Your task to perform on an android device: Clear the shopping cart on target. Search for "lenovo thinkpad" on target, select the first entry, add it to the cart, then select checkout. Image 0: 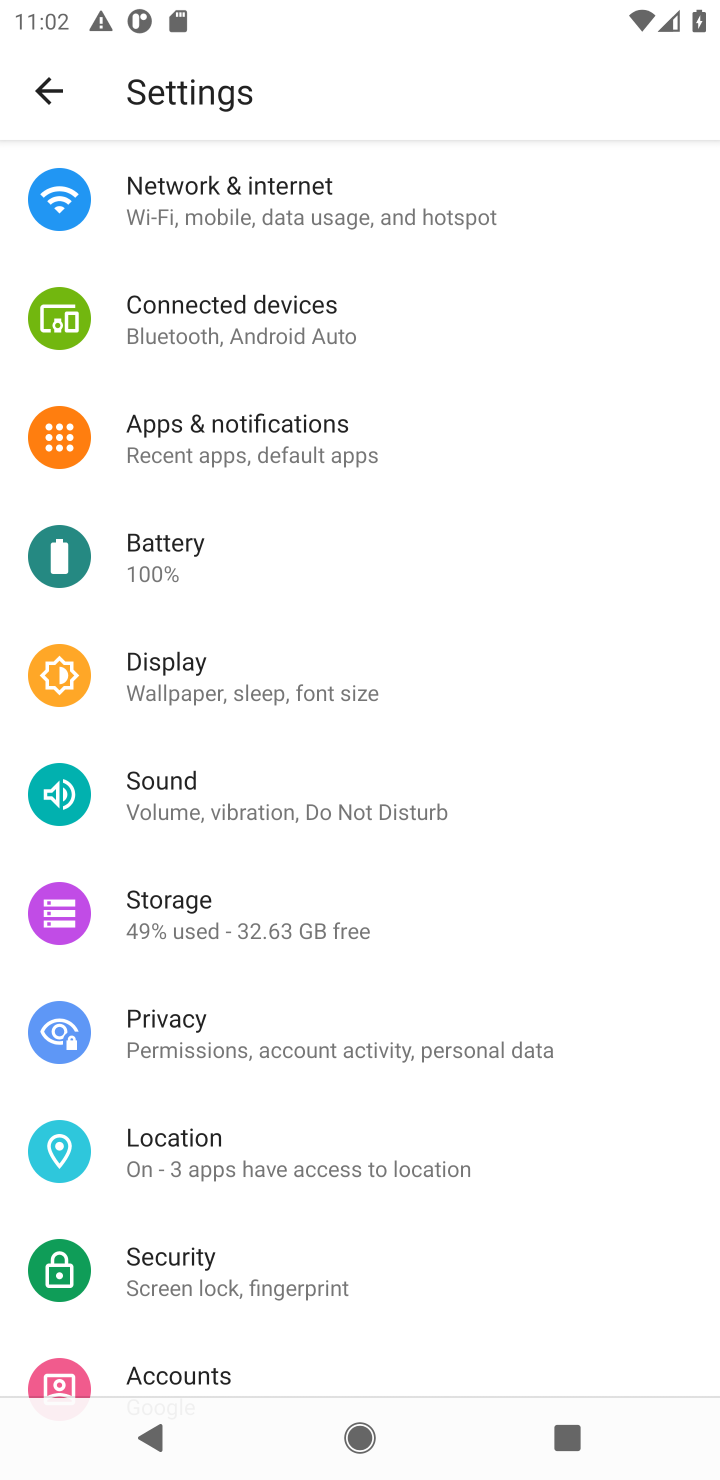
Step 0: press home button
Your task to perform on an android device: Clear the shopping cart on target. Search for "lenovo thinkpad" on target, select the first entry, add it to the cart, then select checkout. Image 1: 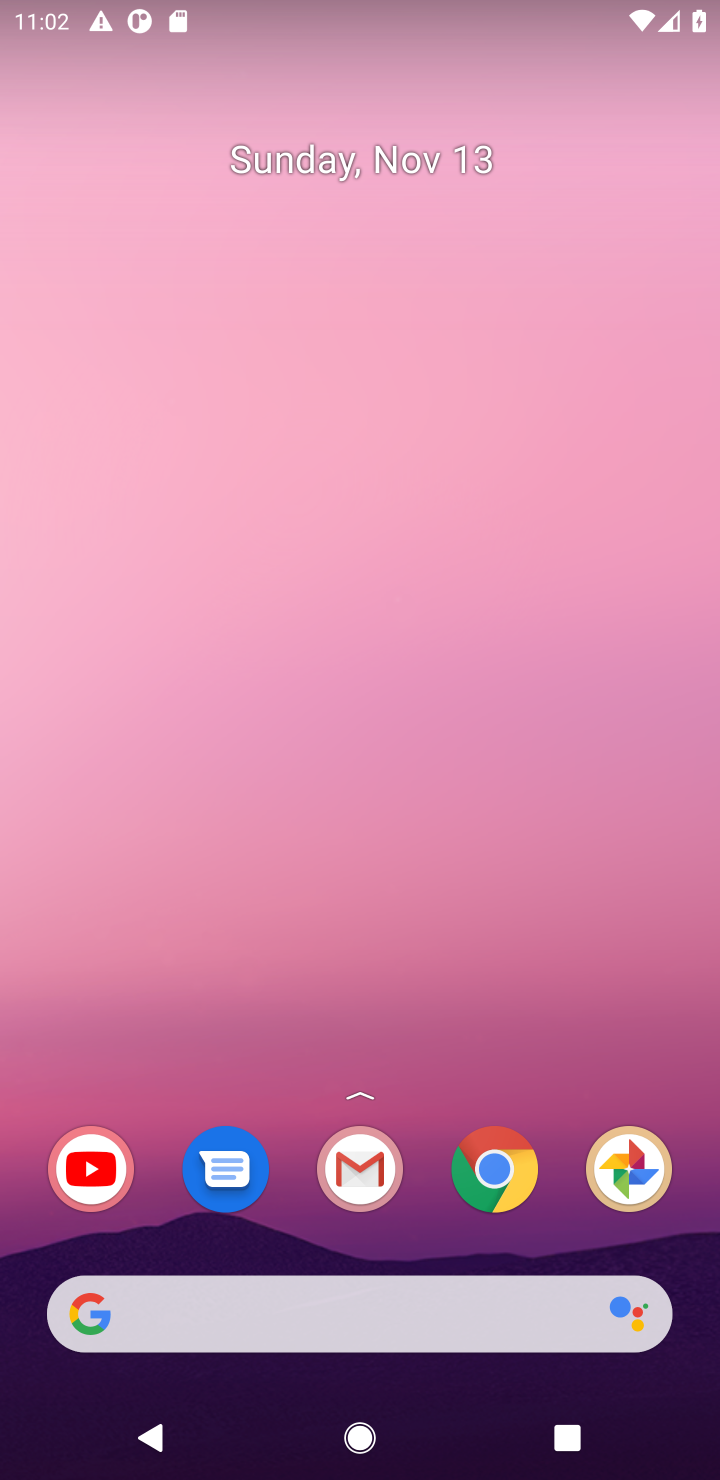
Step 1: drag from (419, 1242) to (388, 7)
Your task to perform on an android device: Clear the shopping cart on target. Search for "lenovo thinkpad" on target, select the first entry, add it to the cart, then select checkout. Image 2: 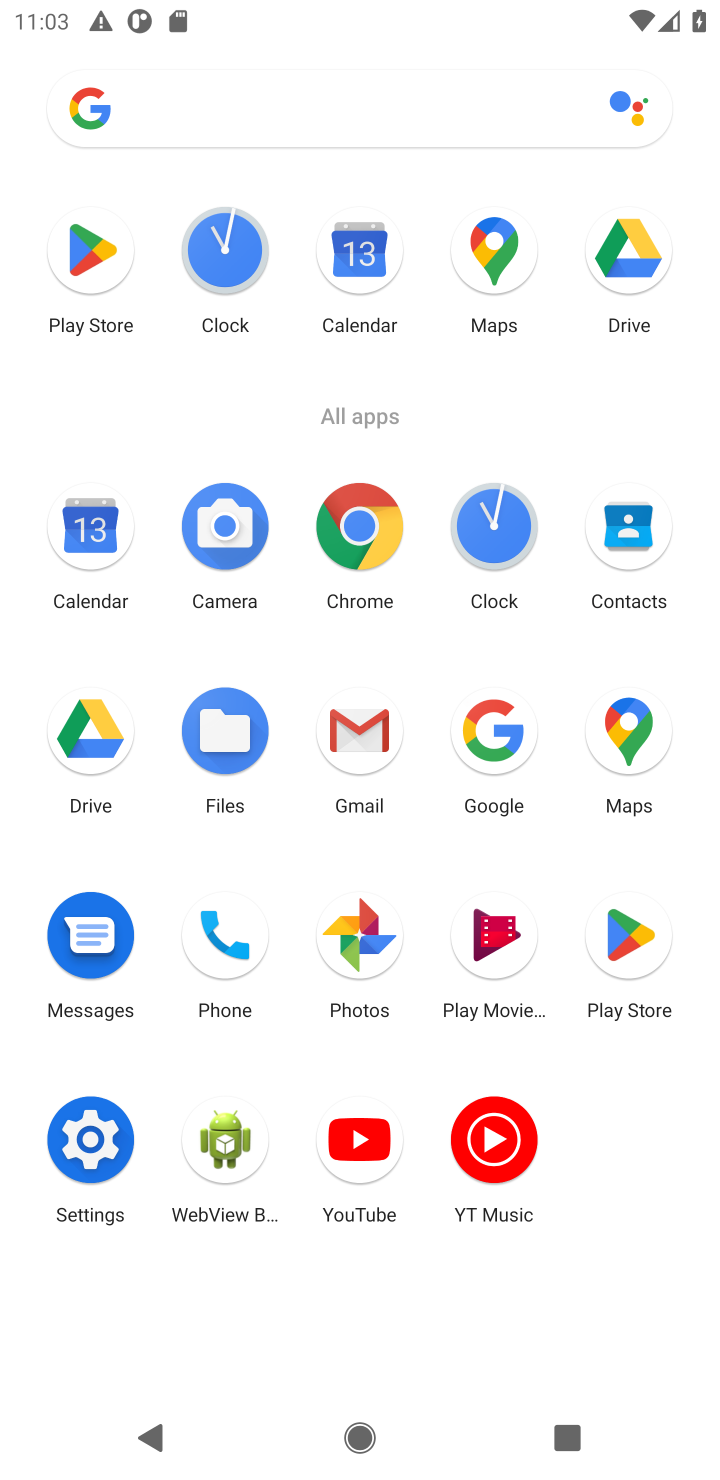
Step 2: click (364, 522)
Your task to perform on an android device: Clear the shopping cart on target. Search for "lenovo thinkpad" on target, select the first entry, add it to the cart, then select checkout. Image 3: 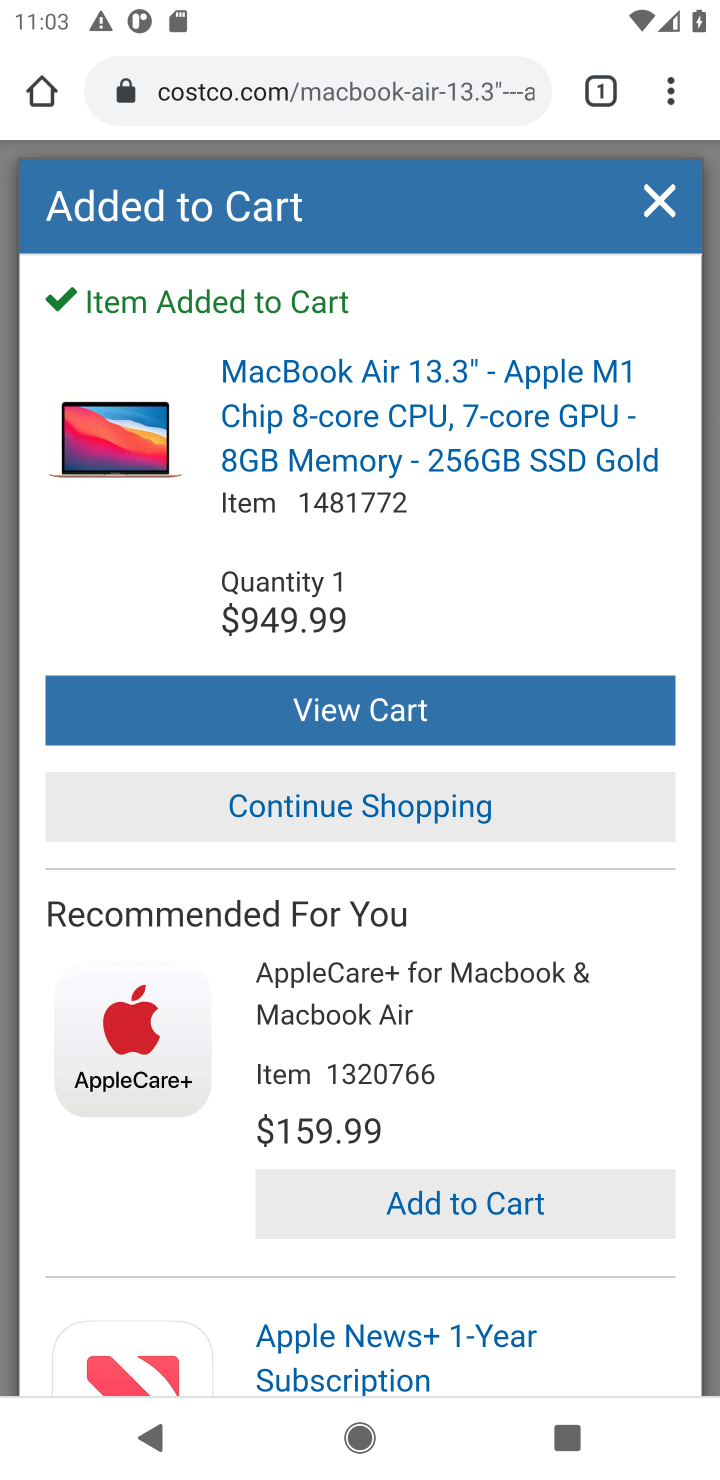
Step 3: click (473, 104)
Your task to perform on an android device: Clear the shopping cart on target. Search for "lenovo thinkpad" on target, select the first entry, add it to the cart, then select checkout. Image 4: 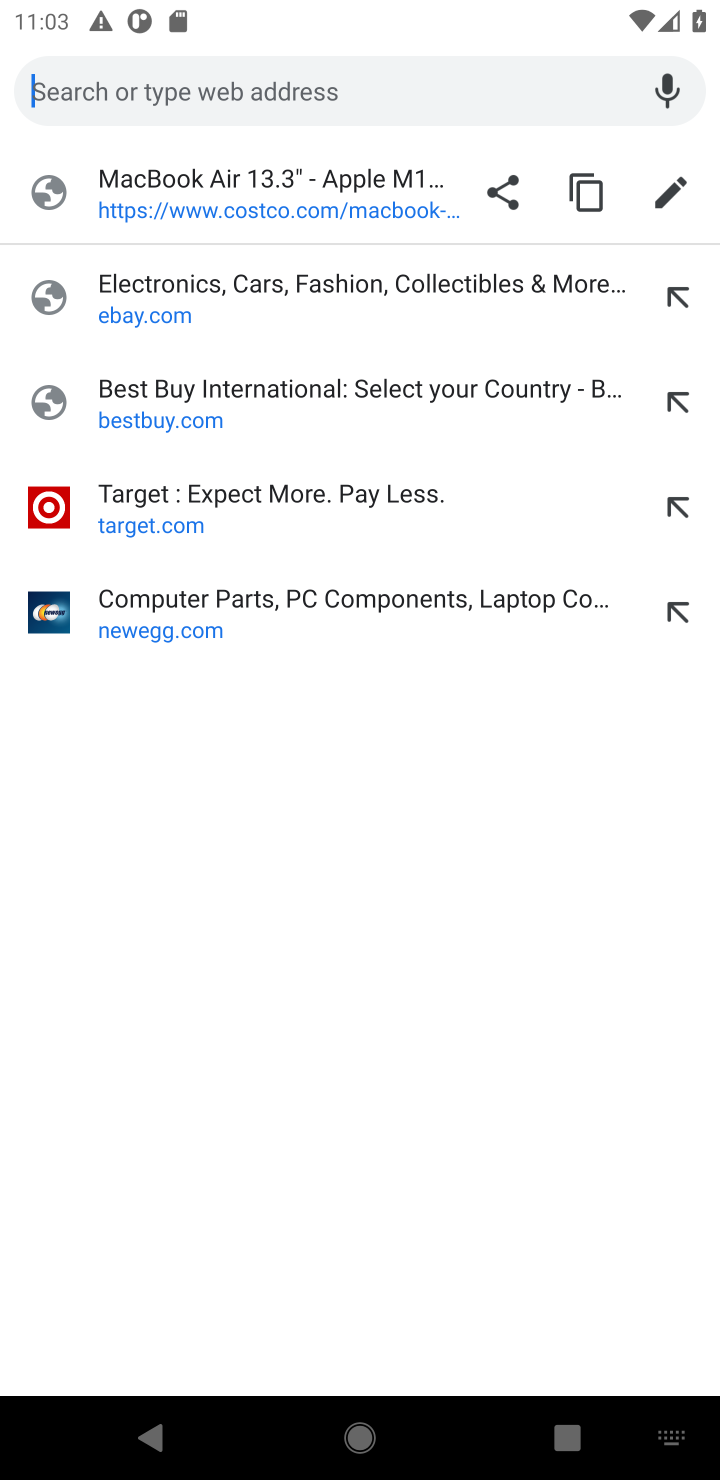
Step 4: type "target.com"
Your task to perform on an android device: Clear the shopping cart on target. Search for "lenovo thinkpad" on target, select the first entry, add it to the cart, then select checkout. Image 5: 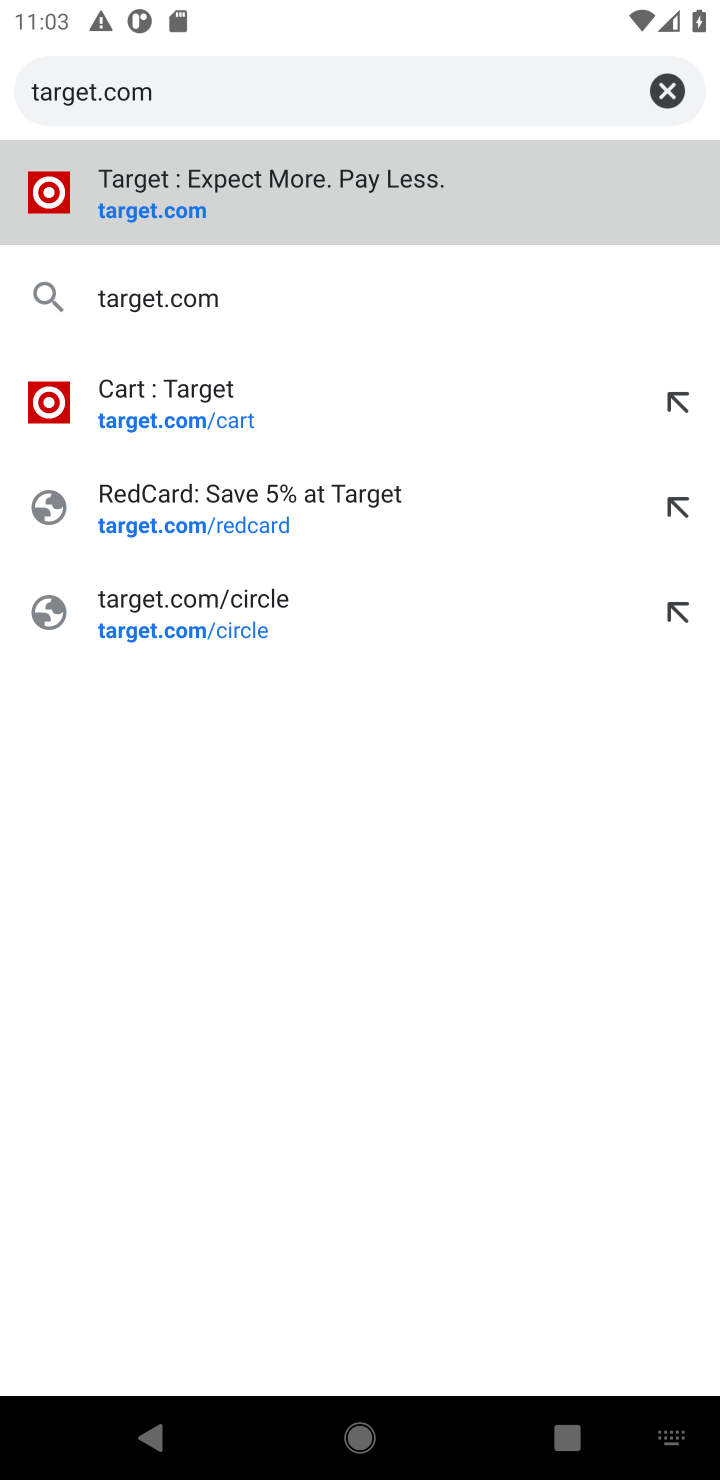
Step 5: press enter
Your task to perform on an android device: Clear the shopping cart on target. Search for "lenovo thinkpad" on target, select the first entry, add it to the cart, then select checkout. Image 6: 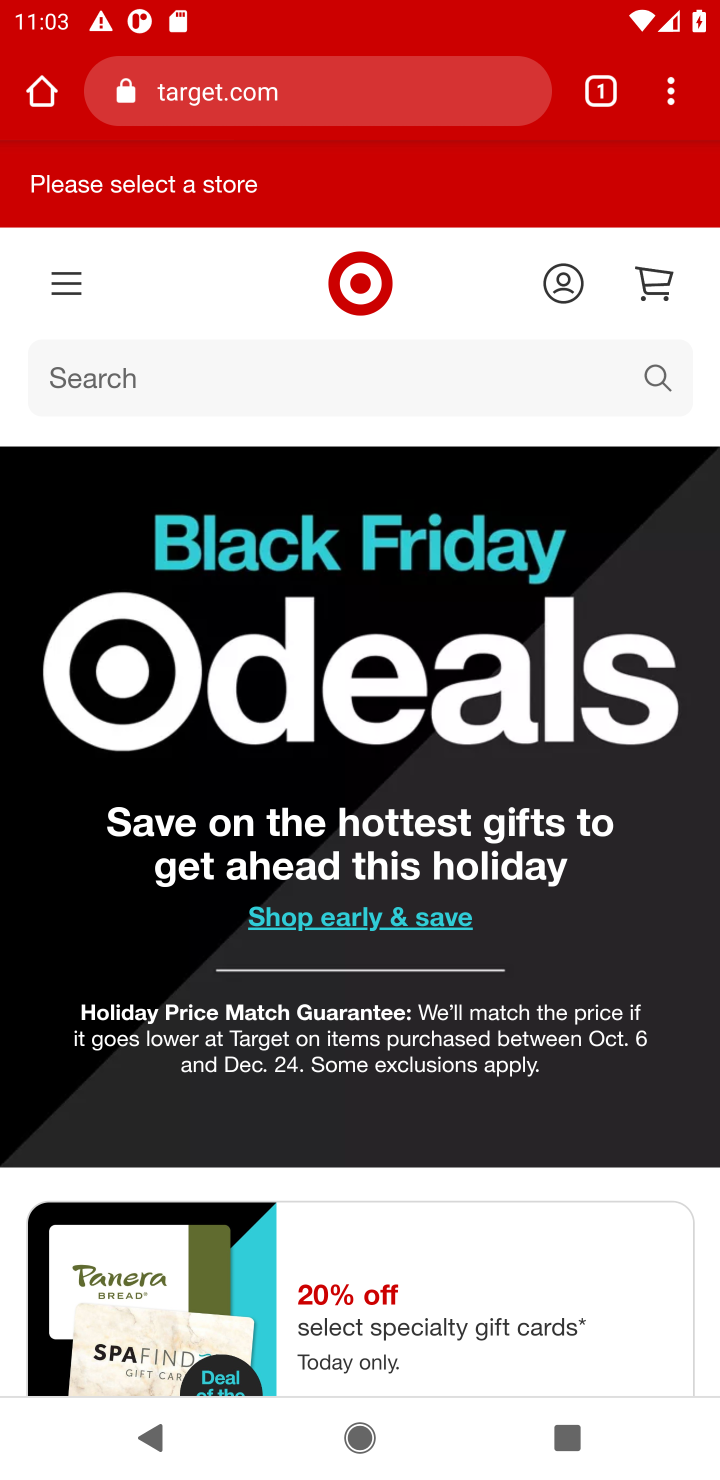
Step 6: click (640, 274)
Your task to perform on an android device: Clear the shopping cart on target. Search for "lenovo thinkpad" on target, select the first entry, add it to the cart, then select checkout. Image 7: 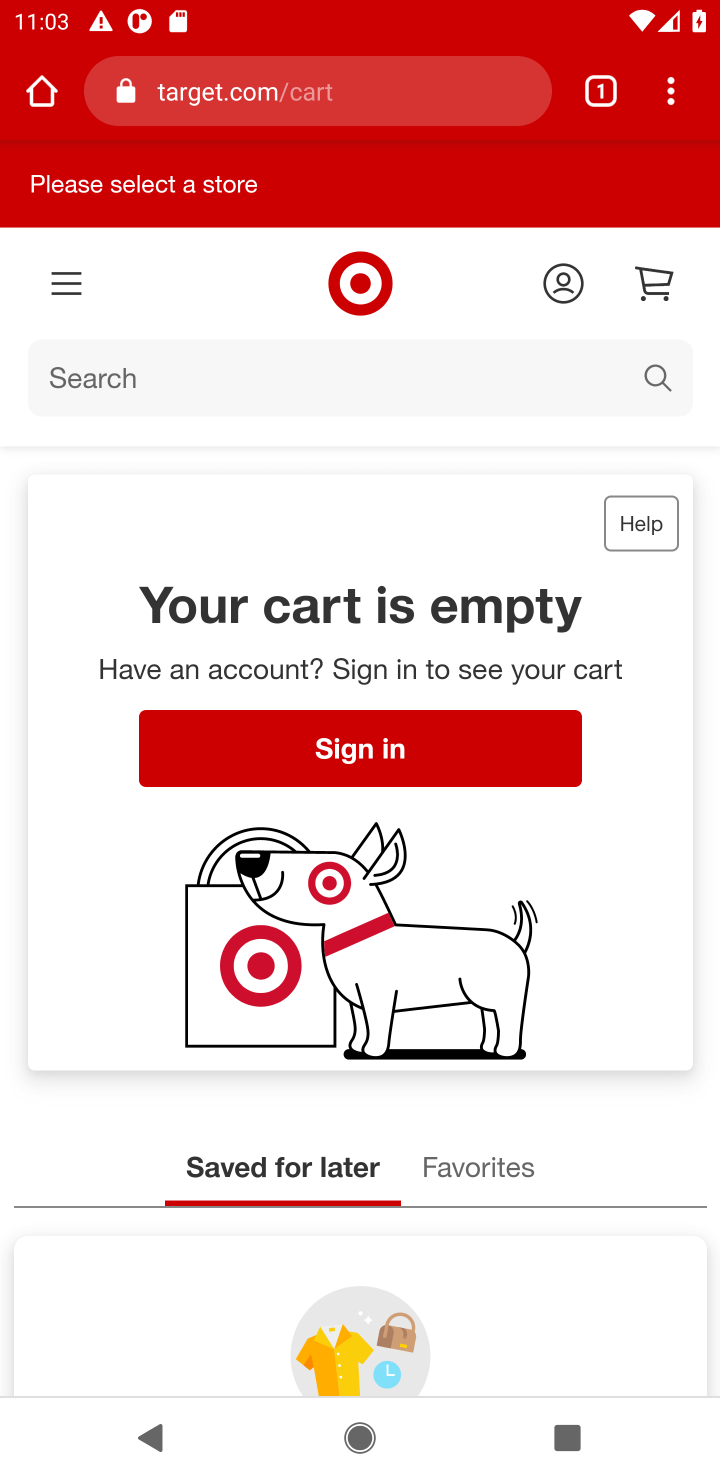
Step 7: click (268, 382)
Your task to perform on an android device: Clear the shopping cart on target. Search for "lenovo thinkpad" on target, select the first entry, add it to the cart, then select checkout. Image 8: 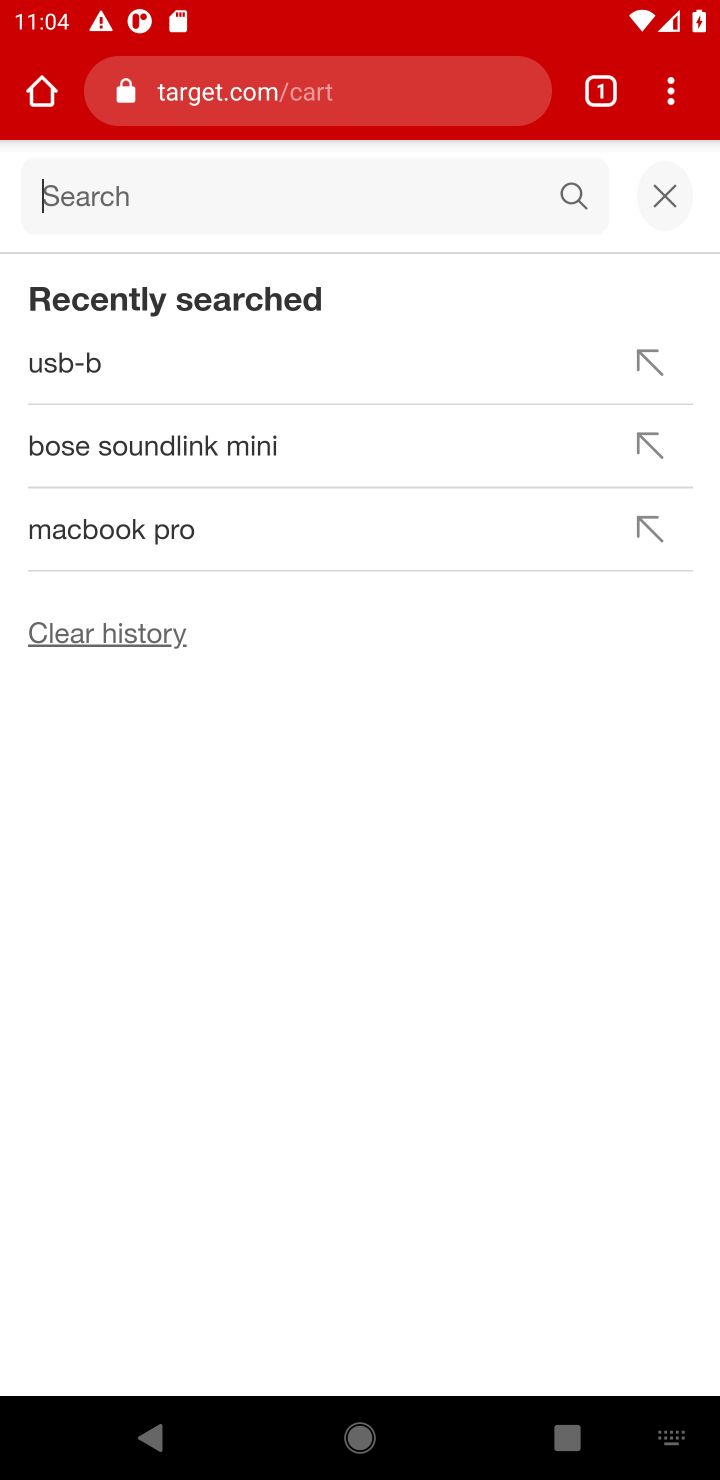
Step 8: type "lenovo thinkpad"
Your task to perform on an android device: Clear the shopping cart on target. Search for "lenovo thinkpad" on target, select the first entry, add it to the cart, then select checkout. Image 9: 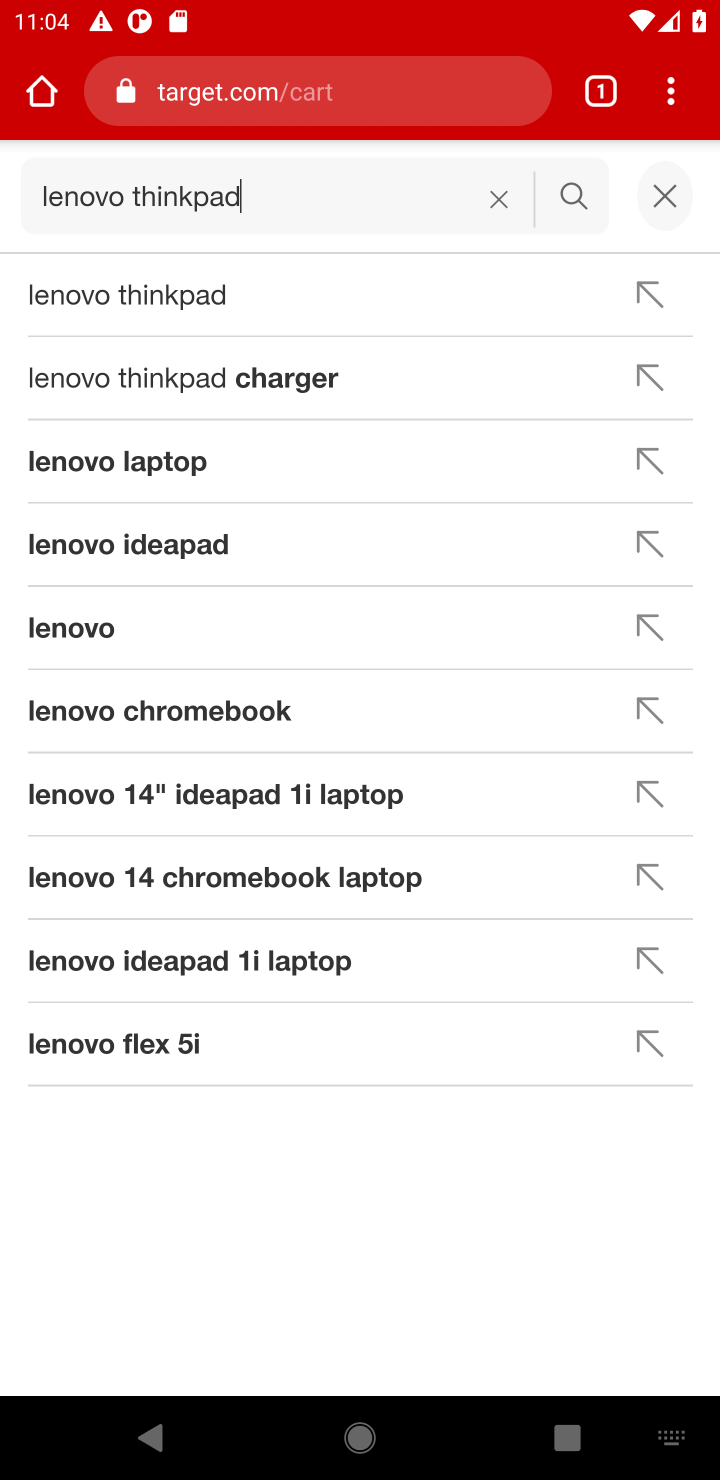
Step 9: press enter
Your task to perform on an android device: Clear the shopping cart on target. Search for "lenovo thinkpad" on target, select the first entry, add it to the cart, then select checkout. Image 10: 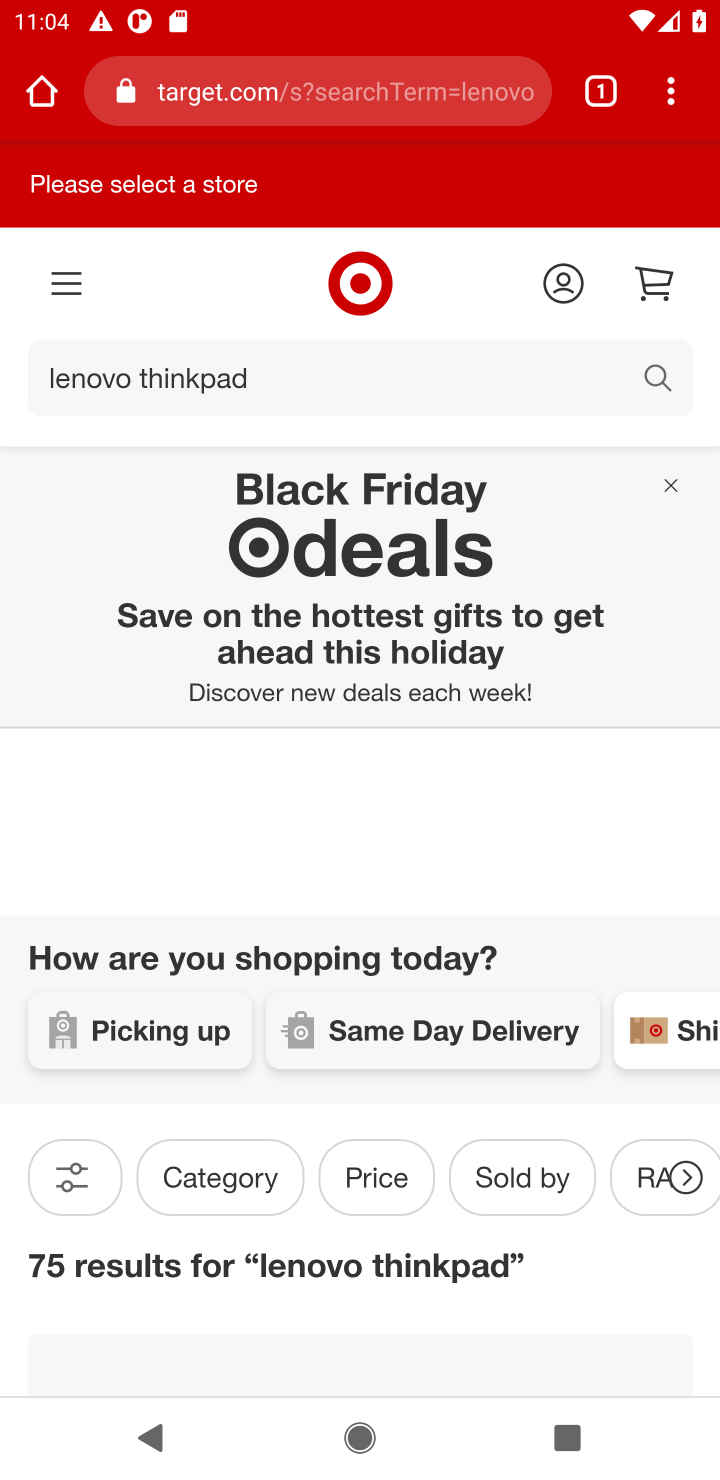
Step 10: drag from (399, 1099) to (506, 135)
Your task to perform on an android device: Clear the shopping cart on target. Search for "lenovo thinkpad" on target, select the first entry, add it to the cart, then select checkout. Image 11: 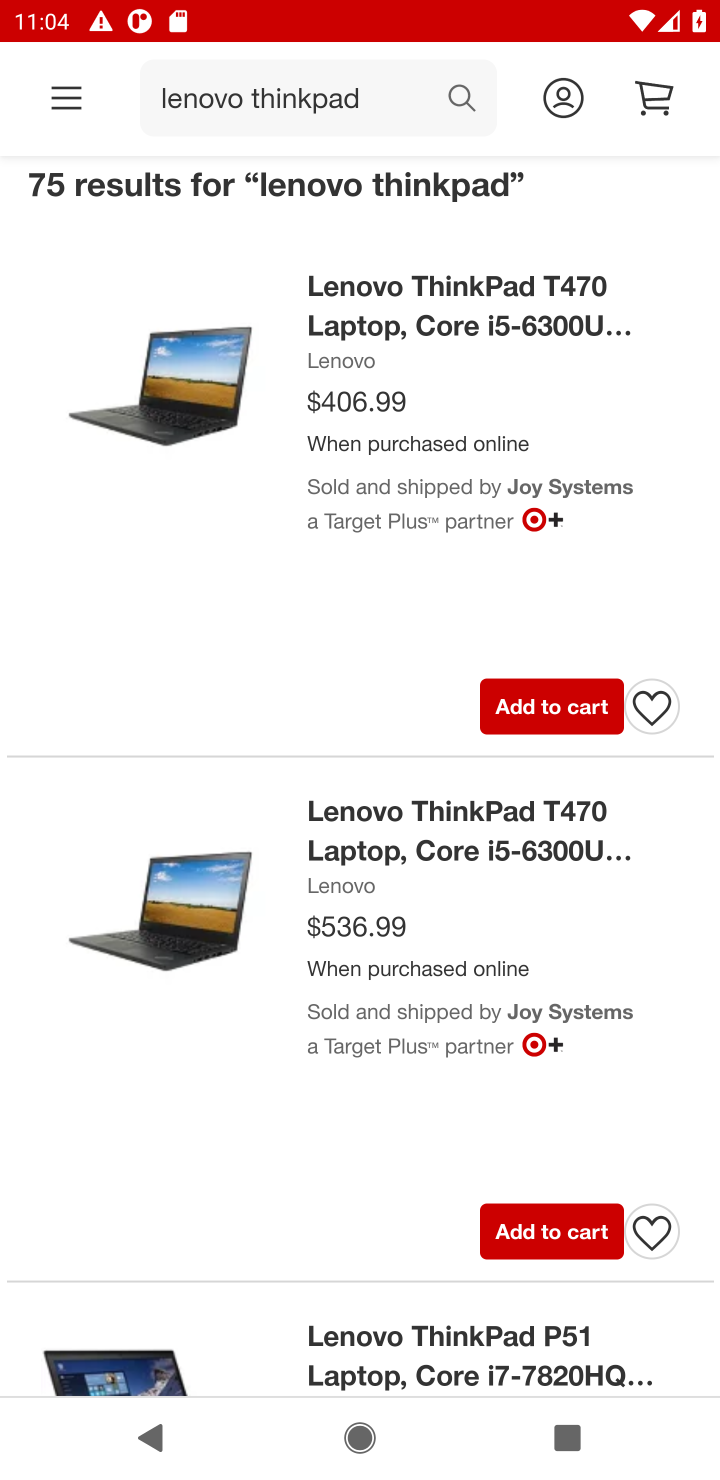
Step 11: click (565, 684)
Your task to perform on an android device: Clear the shopping cart on target. Search for "lenovo thinkpad" on target, select the first entry, add it to the cart, then select checkout. Image 12: 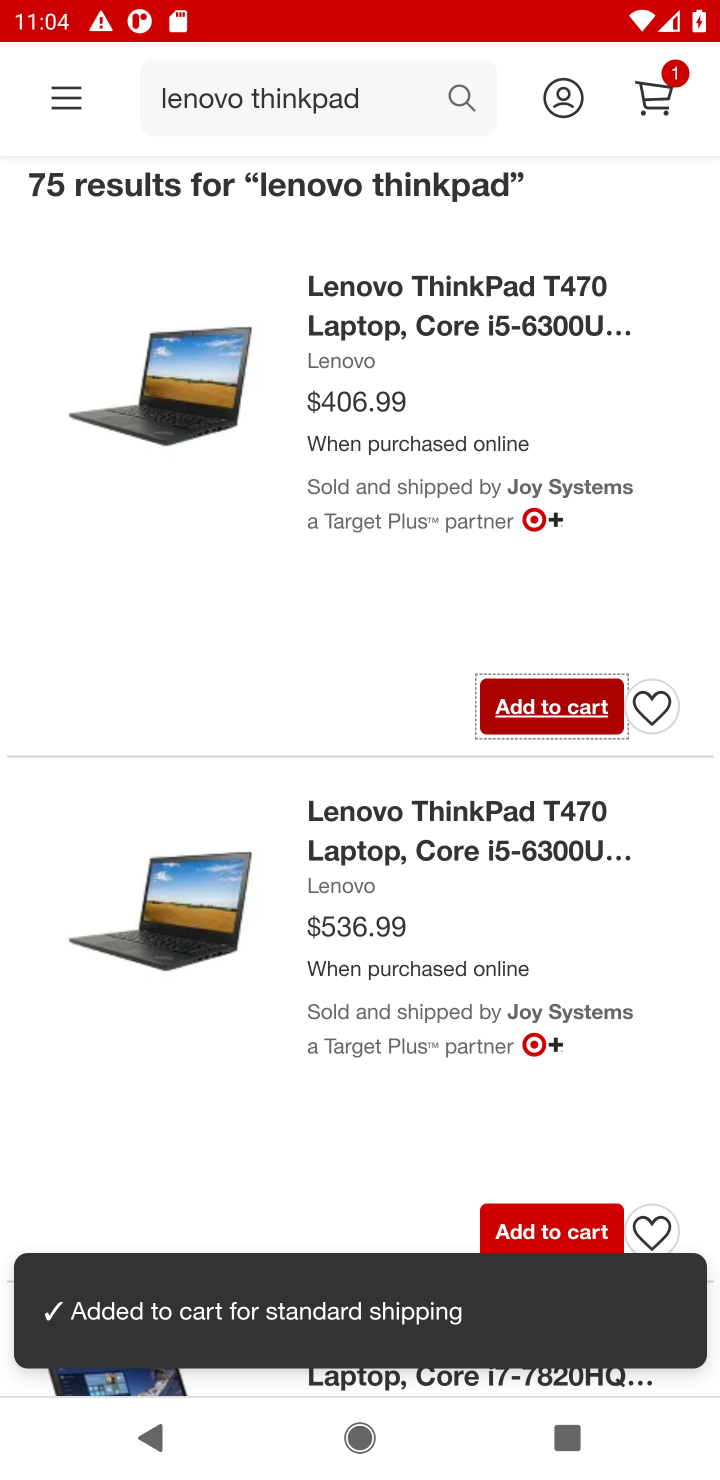
Step 12: click (657, 85)
Your task to perform on an android device: Clear the shopping cart on target. Search for "lenovo thinkpad" on target, select the first entry, add it to the cart, then select checkout. Image 13: 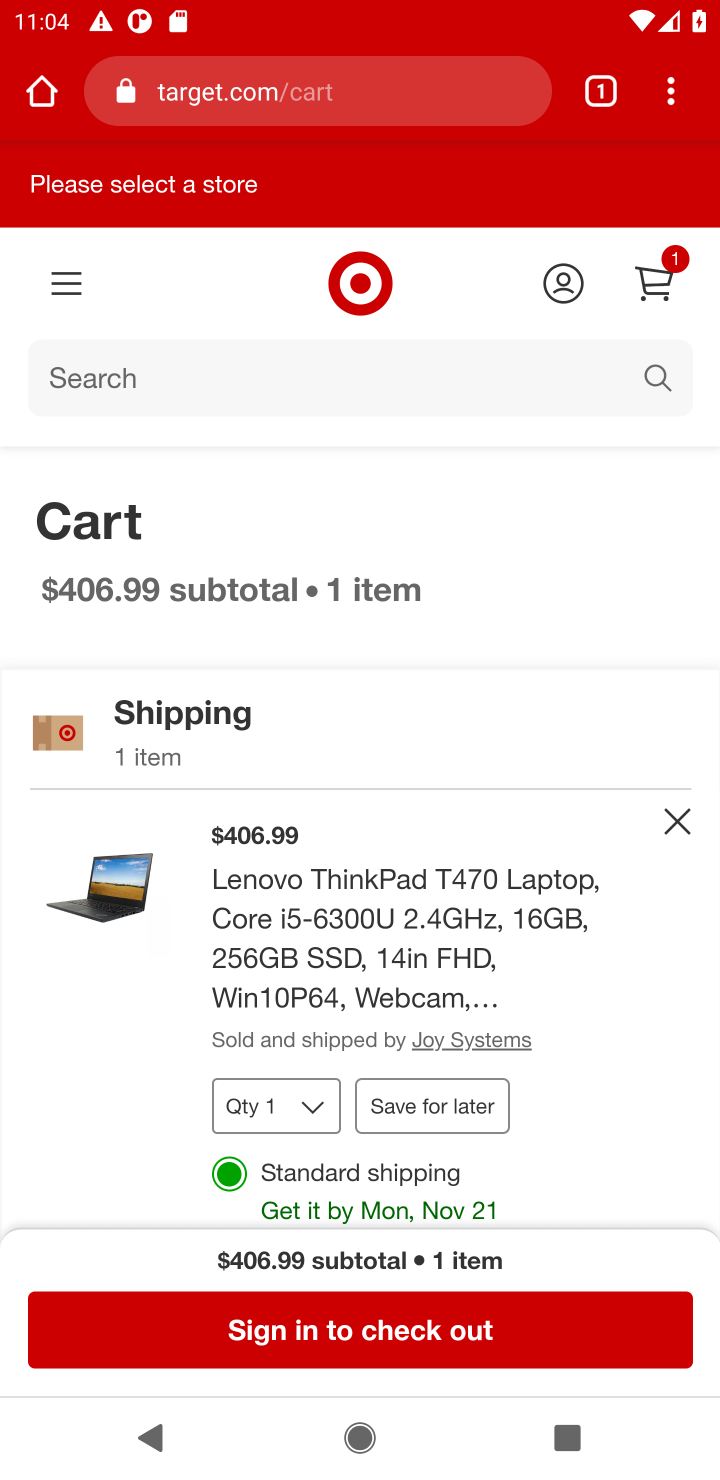
Step 13: click (345, 1331)
Your task to perform on an android device: Clear the shopping cart on target. Search for "lenovo thinkpad" on target, select the first entry, add it to the cart, then select checkout. Image 14: 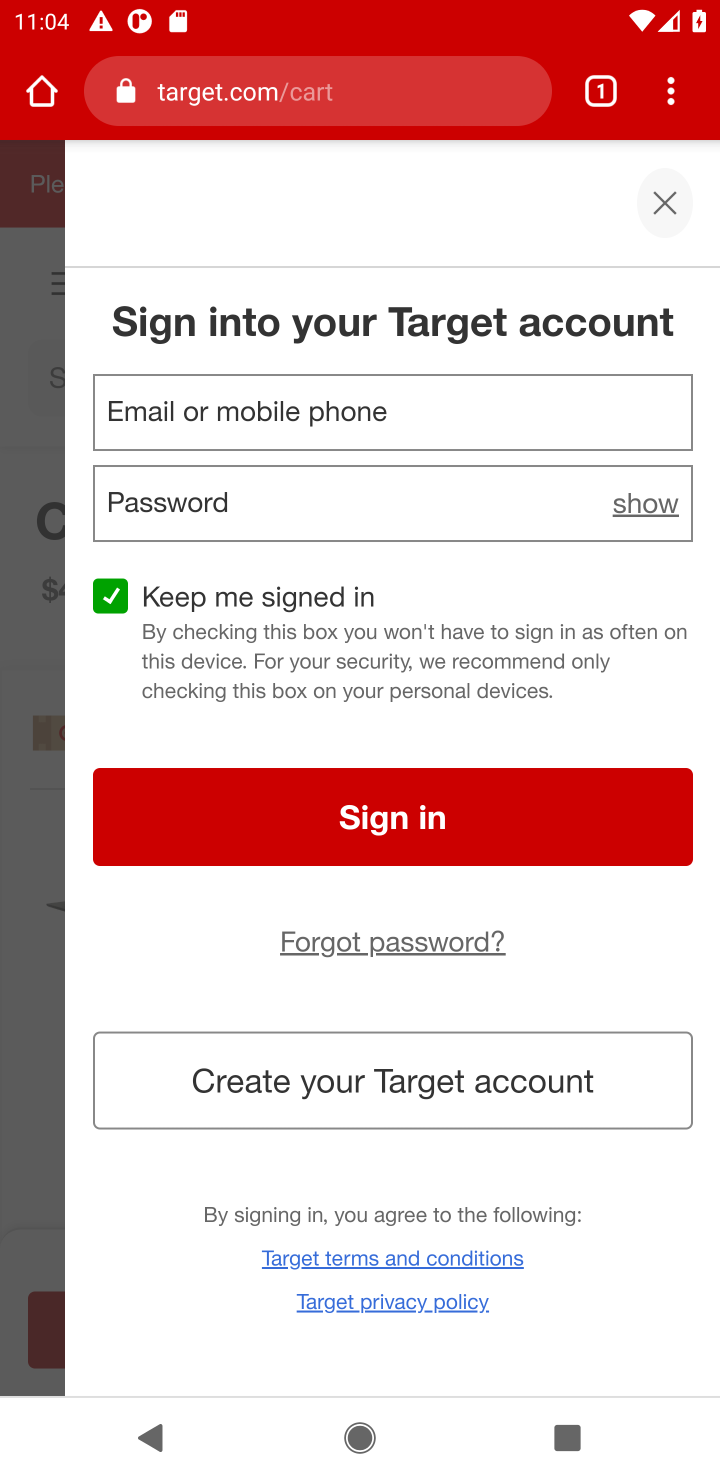
Step 14: task complete